Your task to perform on an android device: Search for Italian restaurants on Maps Image 0: 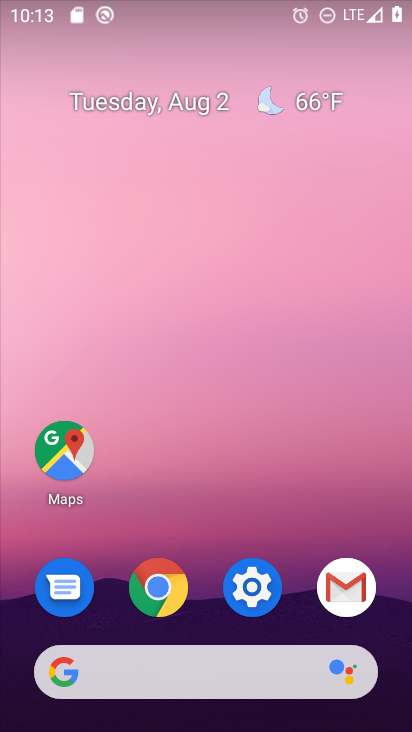
Step 0: click (63, 424)
Your task to perform on an android device: Search for Italian restaurants on Maps Image 1: 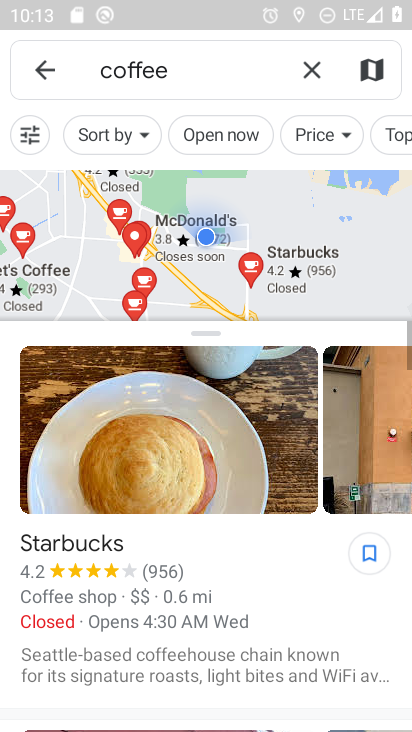
Step 1: click (308, 73)
Your task to perform on an android device: Search for Italian restaurants on Maps Image 2: 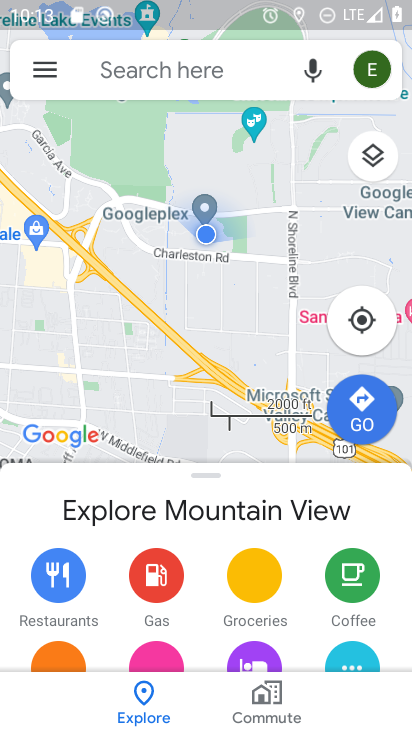
Step 2: click (187, 63)
Your task to perform on an android device: Search for Italian restaurants on Maps Image 3: 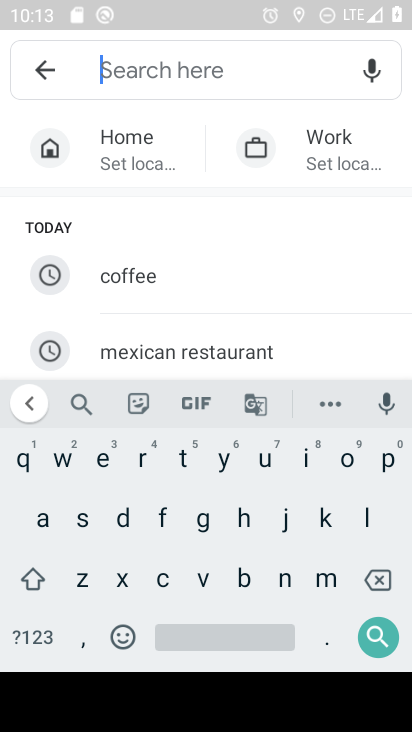
Step 3: click (307, 463)
Your task to perform on an android device: Search for Italian restaurants on Maps Image 4: 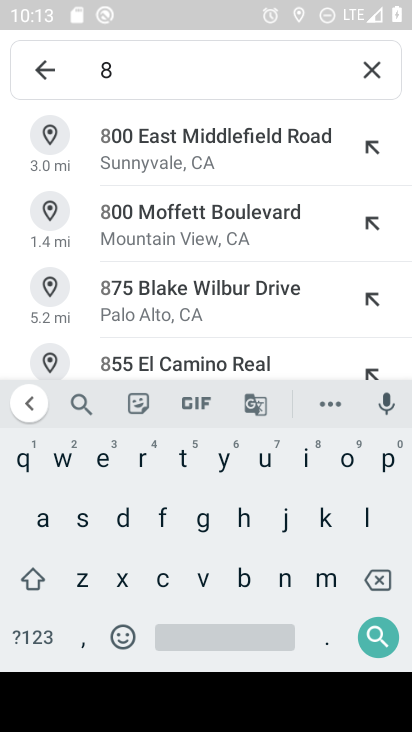
Step 4: click (390, 580)
Your task to perform on an android device: Search for Italian restaurants on Maps Image 5: 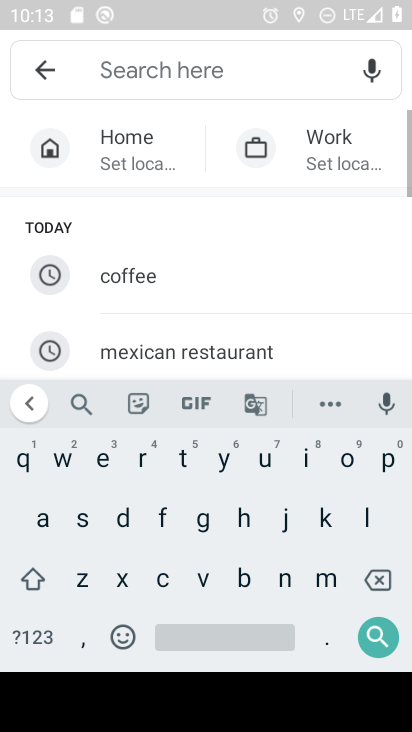
Step 5: click (301, 461)
Your task to perform on an android device: Search for Italian restaurants on Maps Image 6: 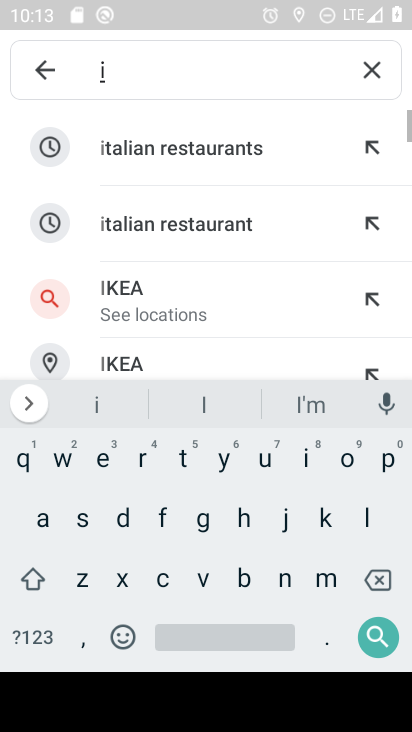
Step 6: click (166, 143)
Your task to perform on an android device: Search for Italian restaurants on Maps Image 7: 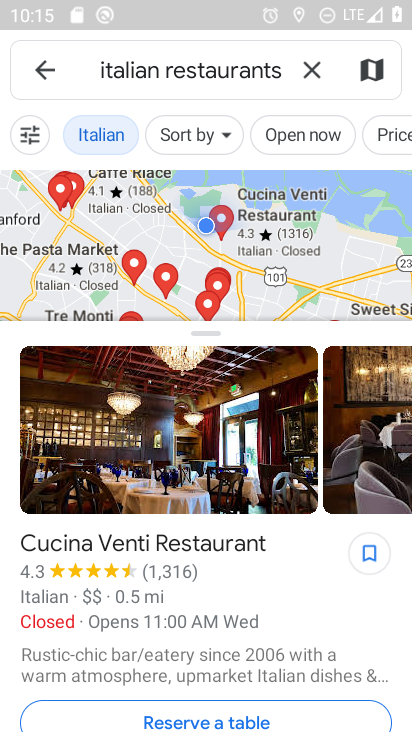
Step 7: task complete